Your task to perform on an android device: search for starred emails in the gmail app Image 0: 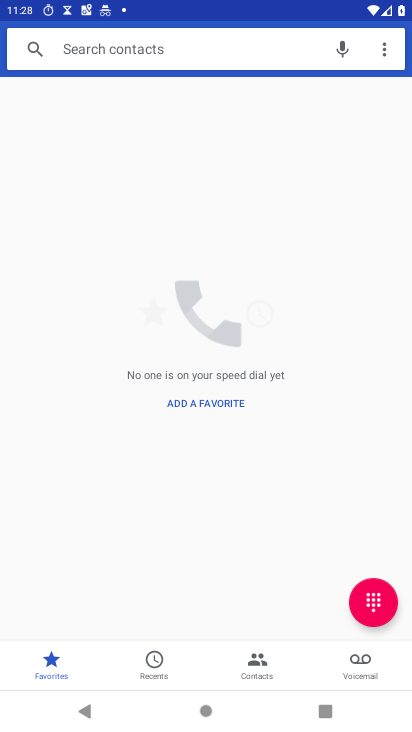
Step 0: press back button
Your task to perform on an android device: search for starred emails in the gmail app Image 1: 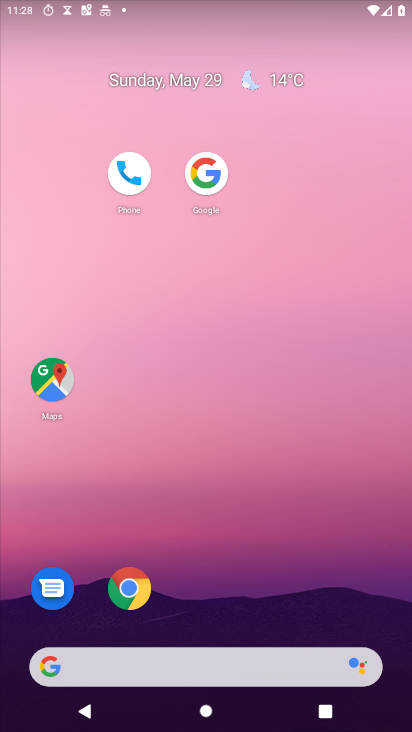
Step 1: drag from (258, 605) to (194, 150)
Your task to perform on an android device: search for starred emails in the gmail app Image 2: 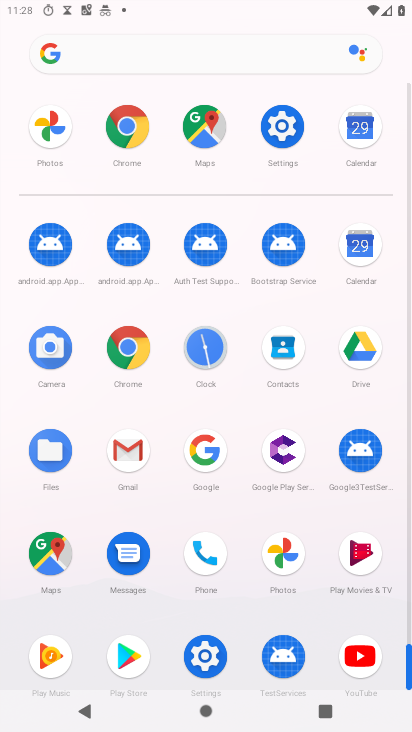
Step 2: click (124, 452)
Your task to perform on an android device: search for starred emails in the gmail app Image 3: 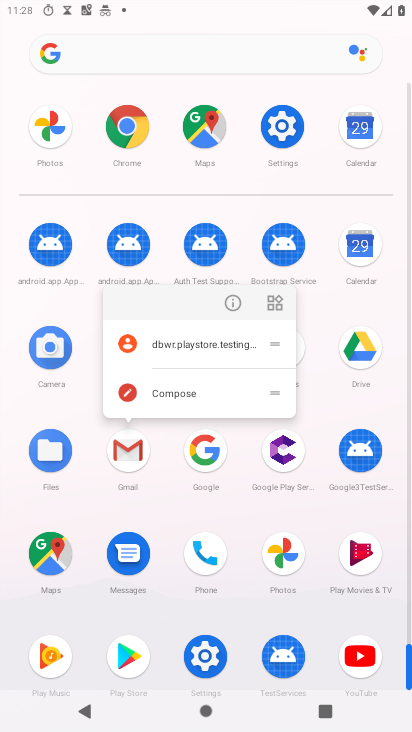
Step 3: click (127, 449)
Your task to perform on an android device: search for starred emails in the gmail app Image 4: 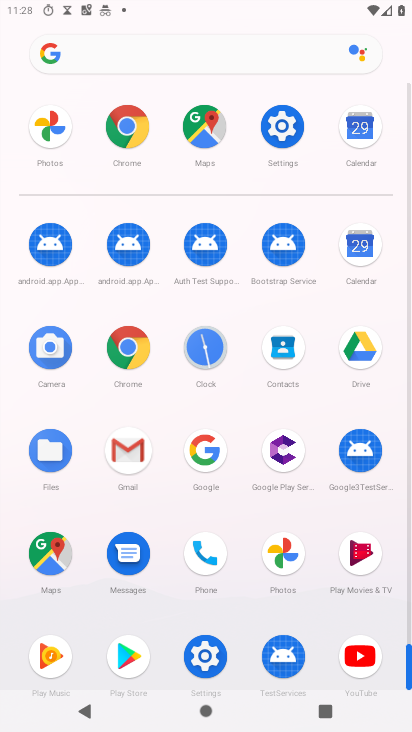
Step 4: click (129, 447)
Your task to perform on an android device: search for starred emails in the gmail app Image 5: 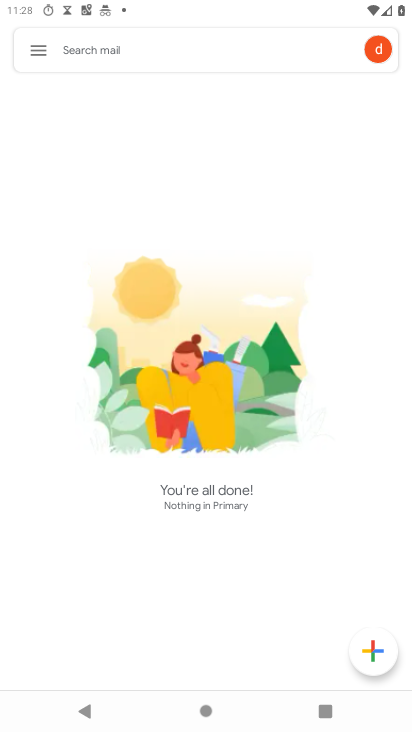
Step 5: click (33, 38)
Your task to perform on an android device: search for starred emails in the gmail app Image 6: 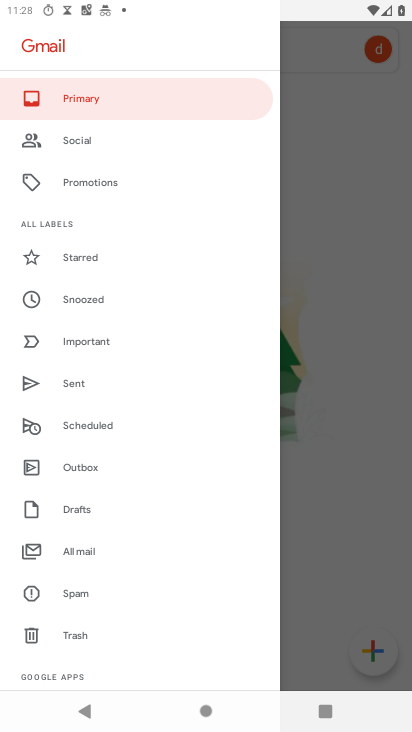
Step 6: click (80, 254)
Your task to perform on an android device: search for starred emails in the gmail app Image 7: 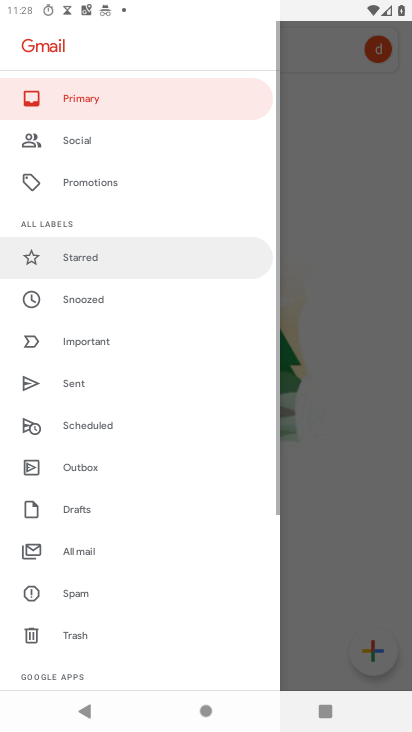
Step 7: click (81, 254)
Your task to perform on an android device: search for starred emails in the gmail app Image 8: 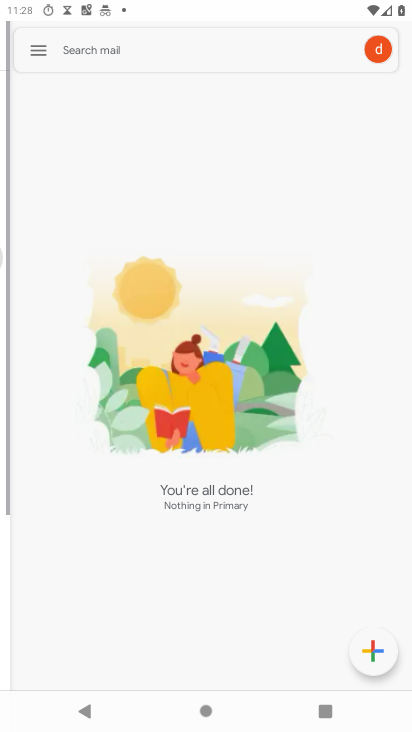
Step 8: click (82, 255)
Your task to perform on an android device: search for starred emails in the gmail app Image 9: 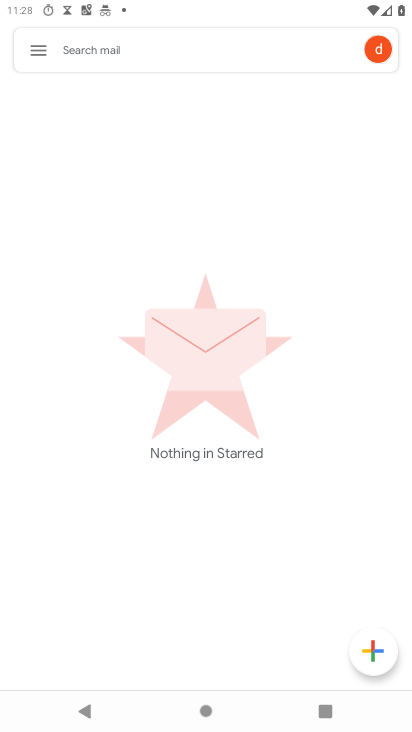
Step 9: task complete